Your task to perform on an android device: change the clock style Image 0: 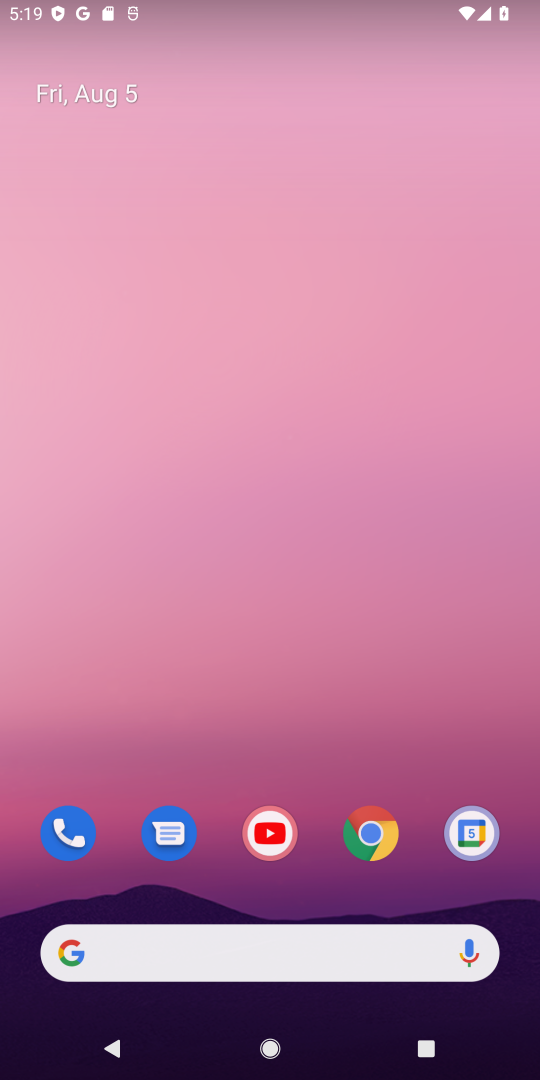
Step 0: press home button
Your task to perform on an android device: change the clock style Image 1: 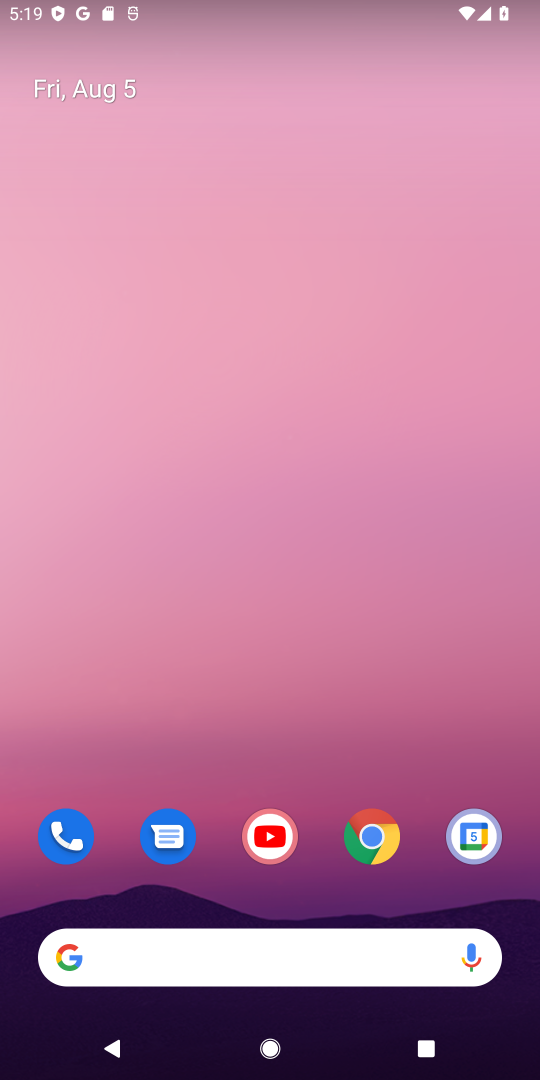
Step 1: drag from (317, 823) to (359, 1)
Your task to perform on an android device: change the clock style Image 2: 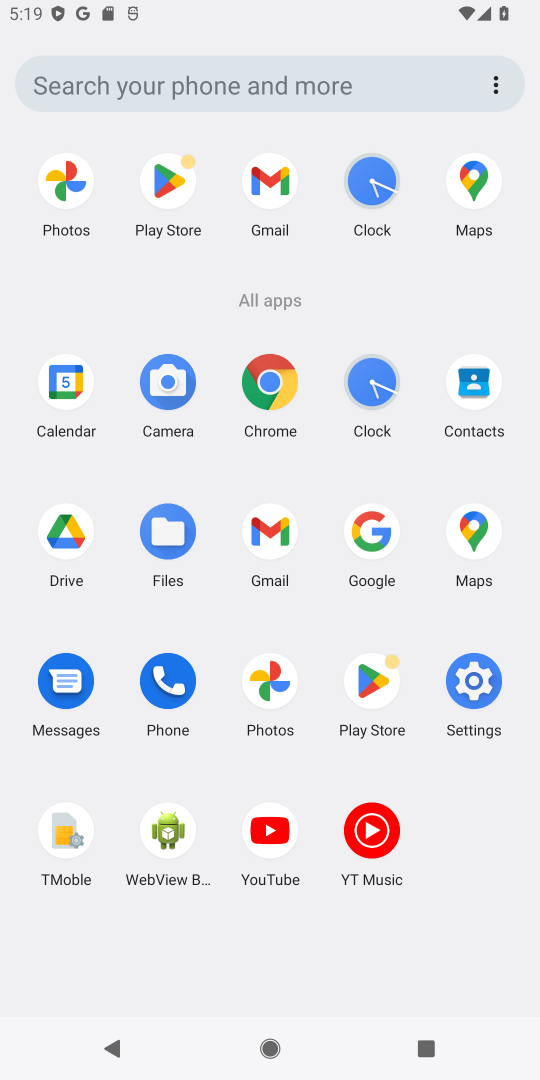
Step 2: click (374, 167)
Your task to perform on an android device: change the clock style Image 3: 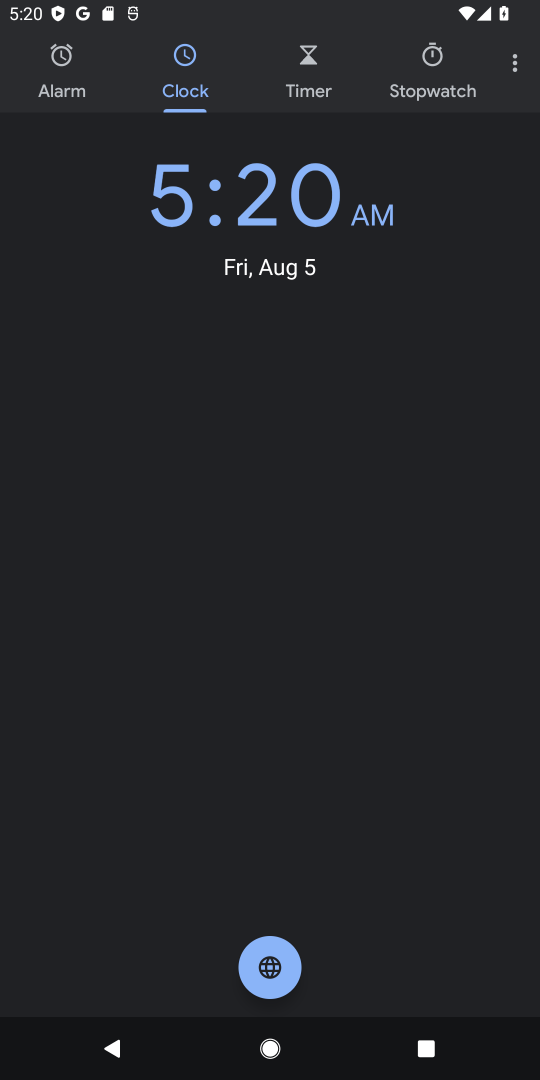
Step 3: click (515, 61)
Your task to perform on an android device: change the clock style Image 4: 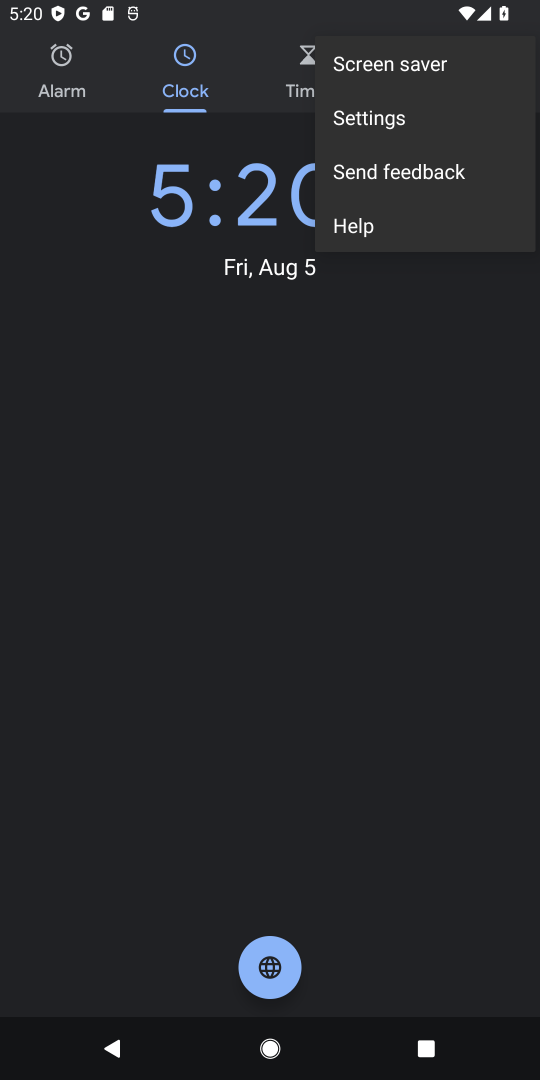
Step 4: click (406, 125)
Your task to perform on an android device: change the clock style Image 5: 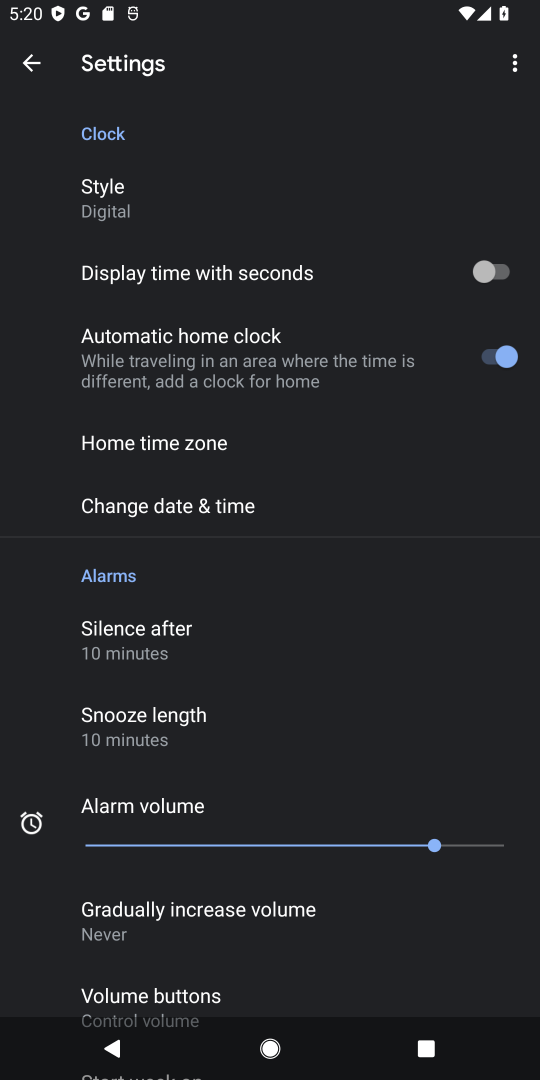
Step 5: click (173, 194)
Your task to perform on an android device: change the clock style Image 6: 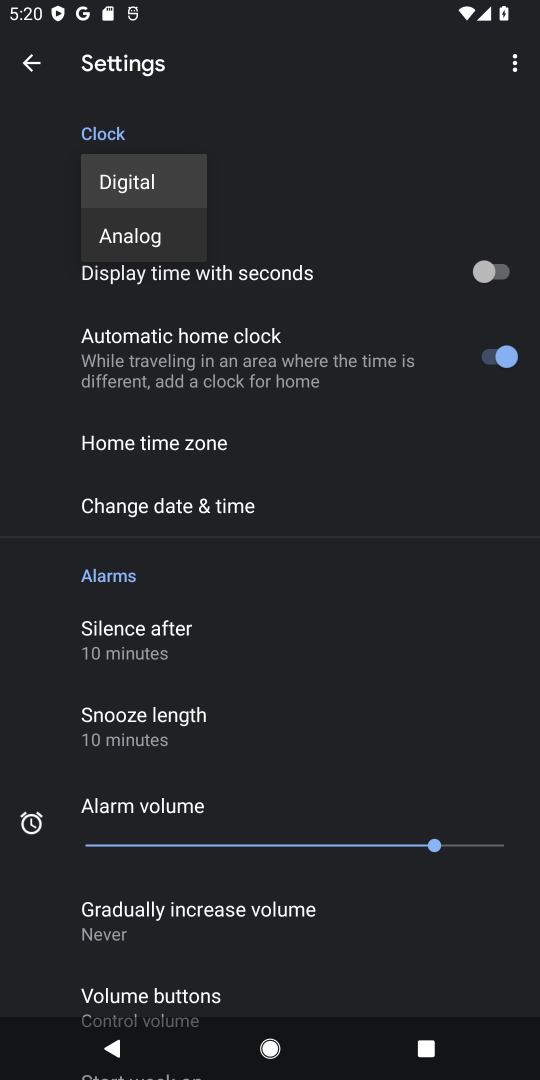
Step 6: click (166, 231)
Your task to perform on an android device: change the clock style Image 7: 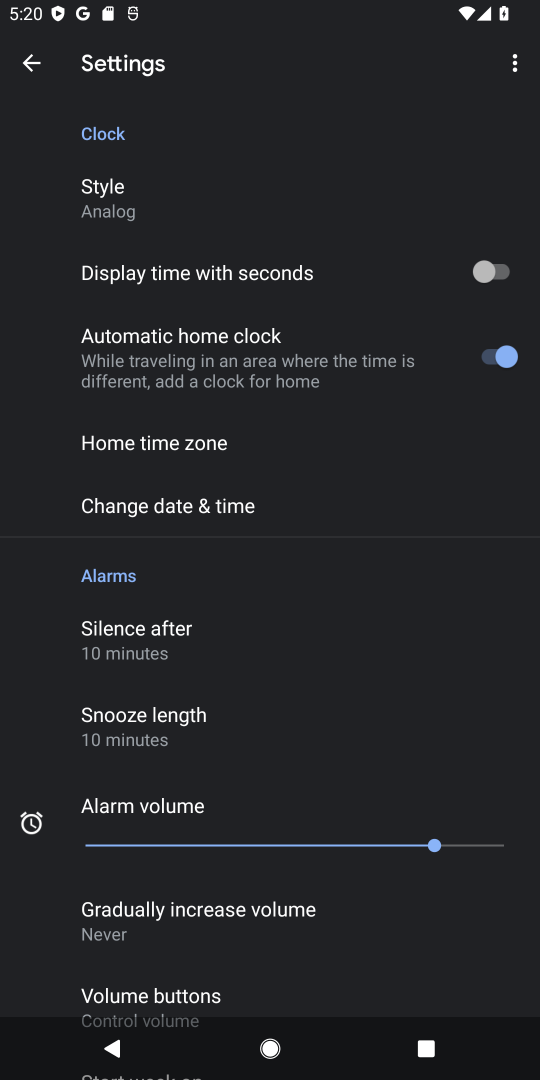
Step 7: task complete